Your task to perform on an android device: Go to Reddit.com Image 0: 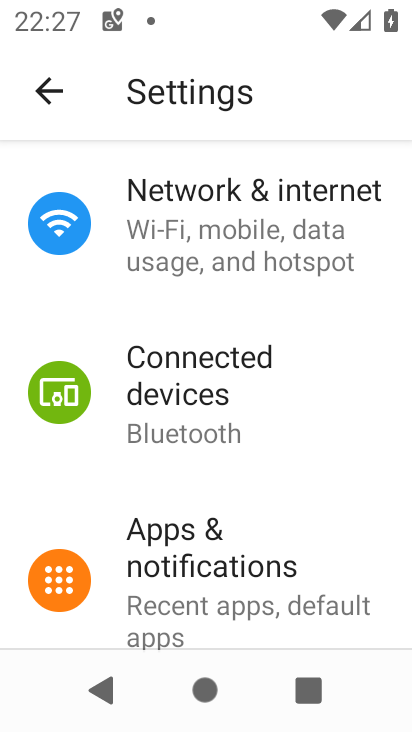
Step 0: press home button
Your task to perform on an android device: Go to Reddit.com Image 1: 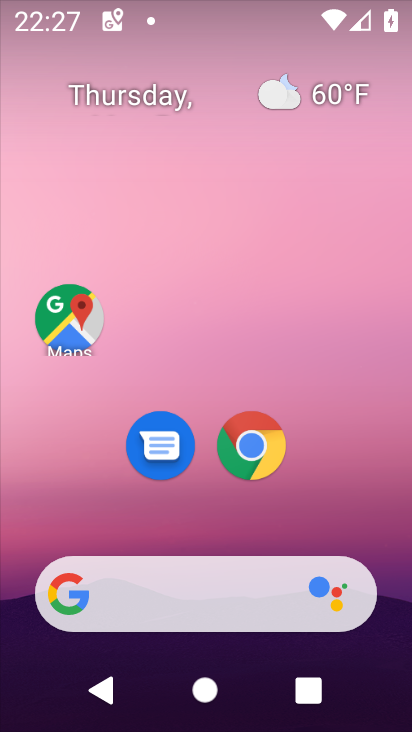
Step 1: click (262, 450)
Your task to perform on an android device: Go to Reddit.com Image 2: 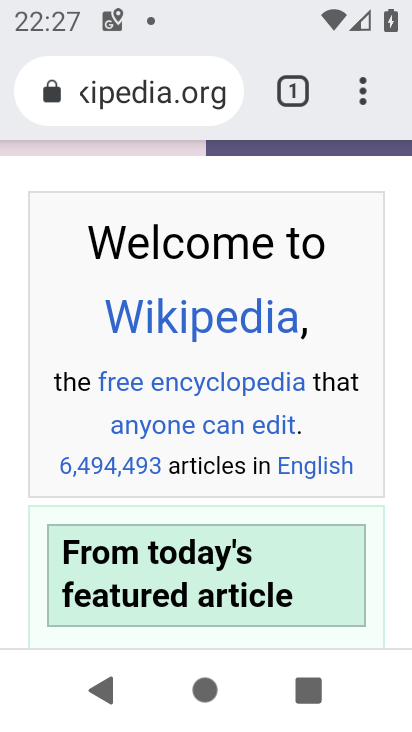
Step 2: click (144, 88)
Your task to perform on an android device: Go to Reddit.com Image 3: 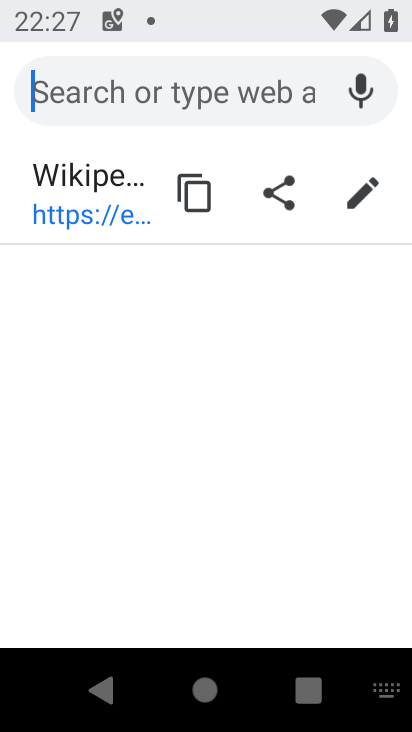
Step 3: type "reddit.com"
Your task to perform on an android device: Go to Reddit.com Image 4: 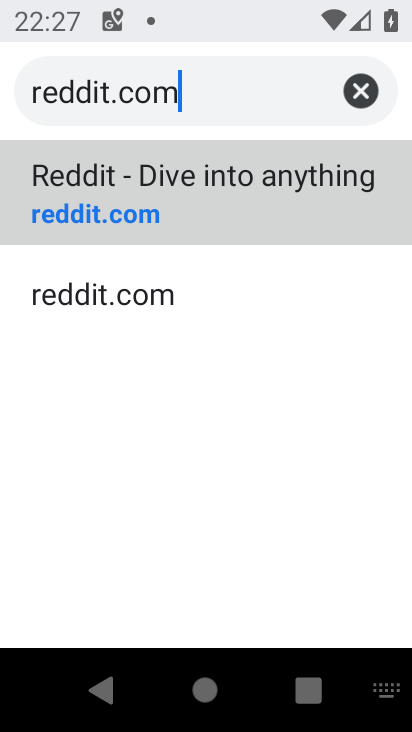
Step 4: click (240, 227)
Your task to perform on an android device: Go to Reddit.com Image 5: 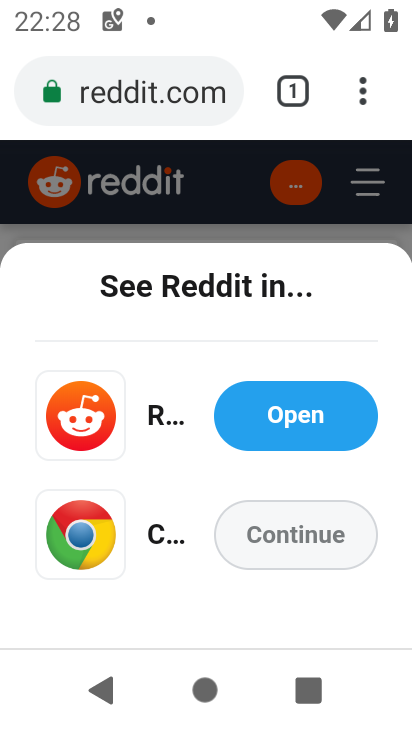
Step 5: click (274, 545)
Your task to perform on an android device: Go to Reddit.com Image 6: 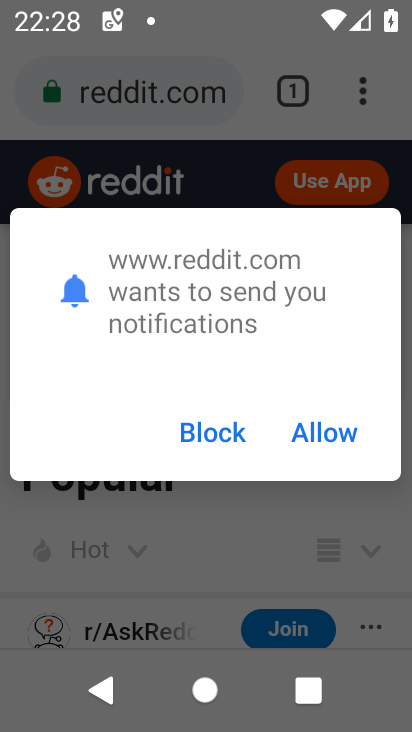
Step 6: task complete